Your task to perform on an android device: turn off translation in the chrome app Image 0: 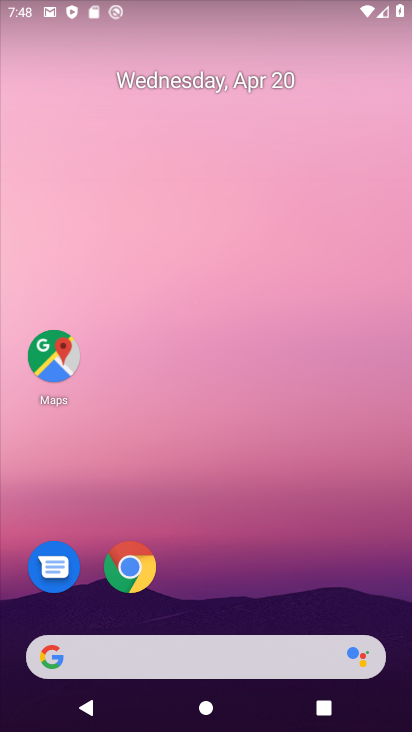
Step 0: click (213, 165)
Your task to perform on an android device: turn off translation in the chrome app Image 1: 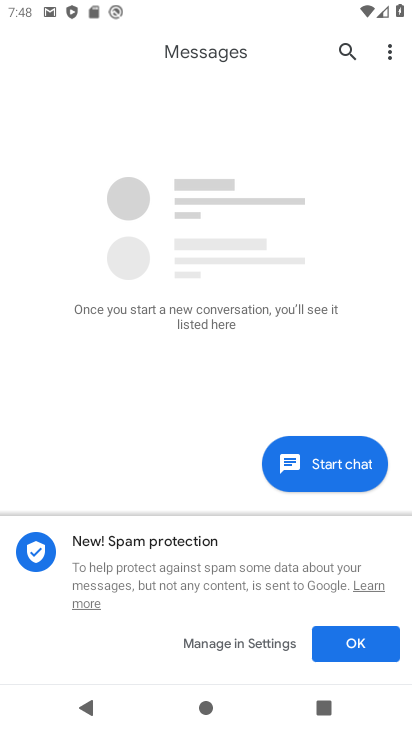
Step 1: press home button
Your task to perform on an android device: turn off translation in the chrome app Image 2: 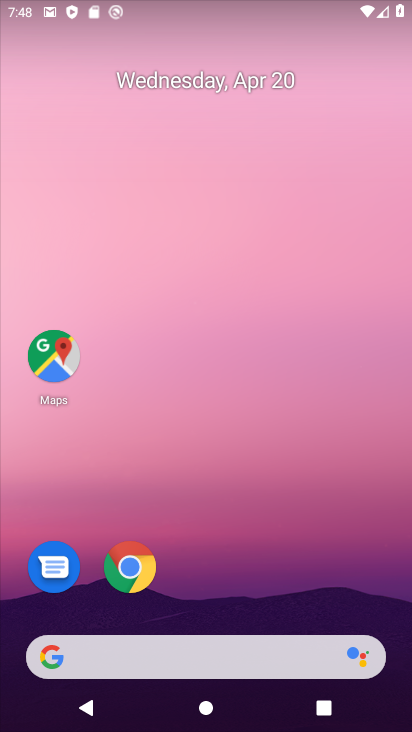
Step 2: drag from (184, 639) to (182, 108)
Your task to perform on an android device: turn off translation in the chrome app Image 3: 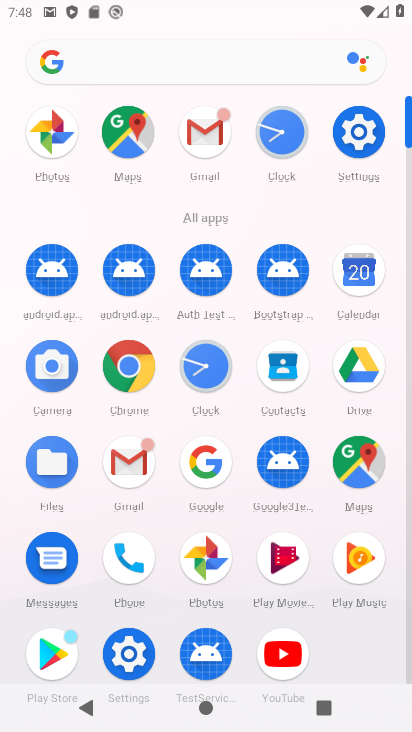
Step 3: click (133, 365)
Your task to perform on an android device: turn off translation in the chrome app Image 4: 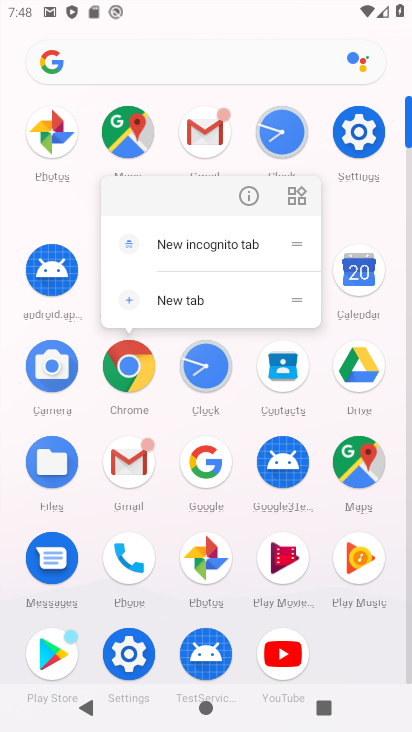
Step 4: click (131, 359)
Your task to perform on an android device: turn off translation in the chrome app Image 5: 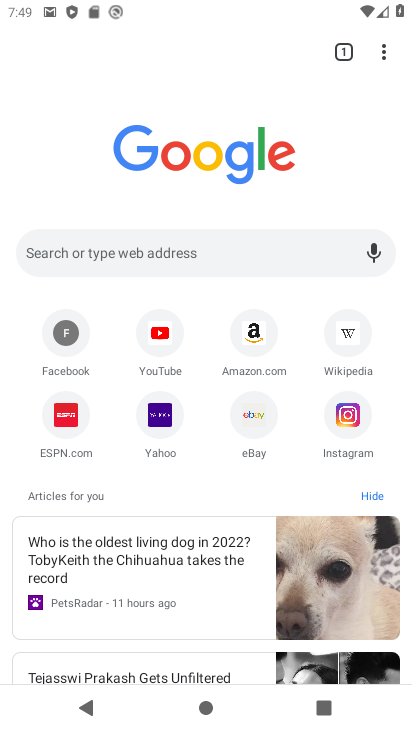
Step 5: drag from (381, 52) to (222, 435)
Your task to perform on an android device: turn off translation in the chrome app Image 6: 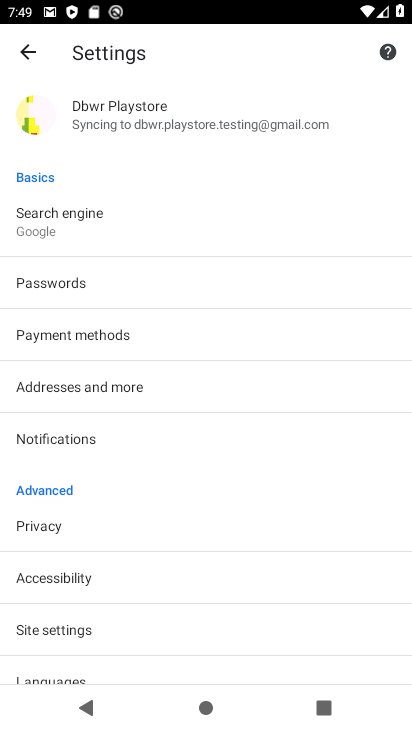
Step 6: click (91, 669)
Your task to perform on an android device: turn off translation in the chrome app Image 7: 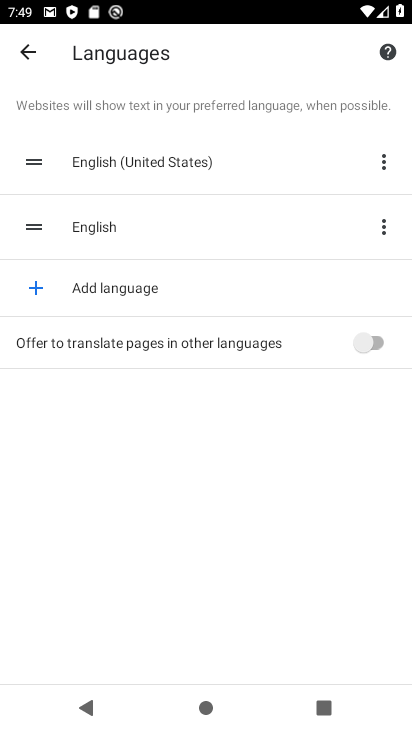
Step 7: task complete